Your task to perform on an android device: create a new album in the google photos Image 0: 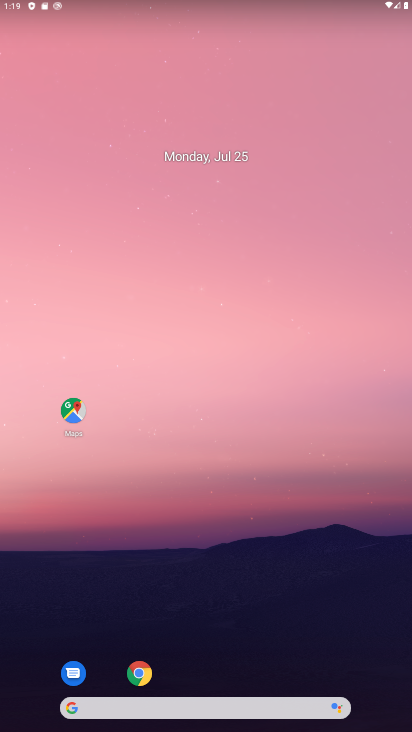
Step 0: drag from (223, 673) to (243, 84)
Your task to perform on an android device: create a new album in the google photos Image 1: 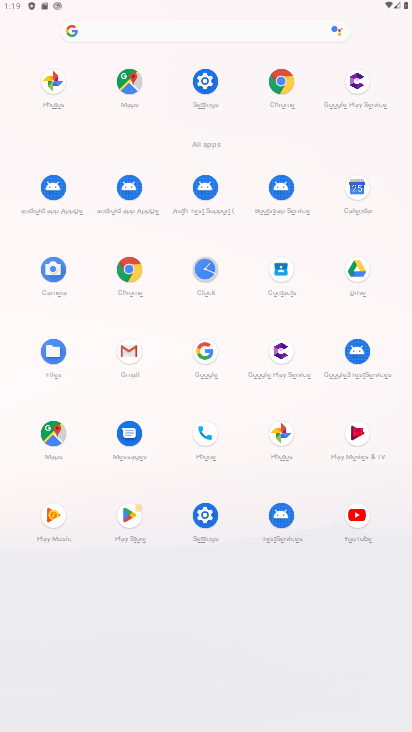
Step 1: click (50, 80)
Your task to perform on an android device: create a new album in the google photos Image 2: 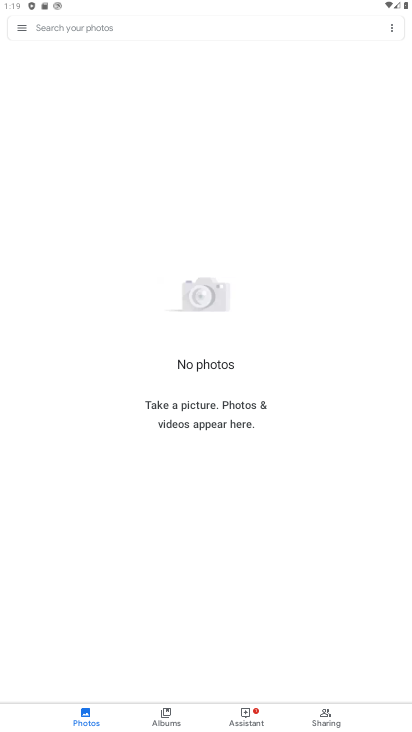
Step 2: click (50, 80)
Your task to perform on an android device: create a new album in the google photos Image 3: 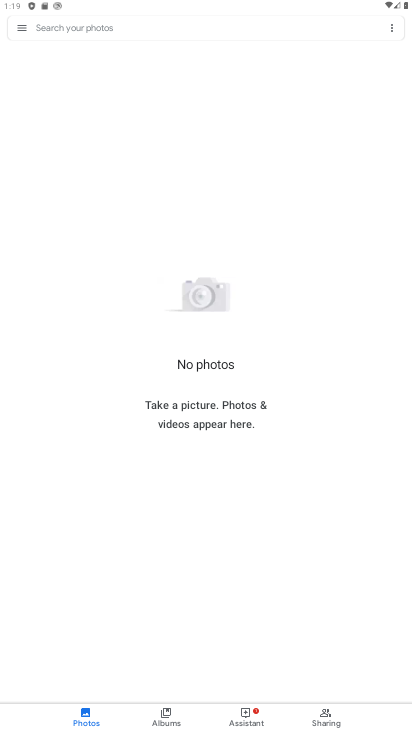
Step 3: task complete